Your task to perform on an android device: Play the last video I watched on Youtube Image 0: 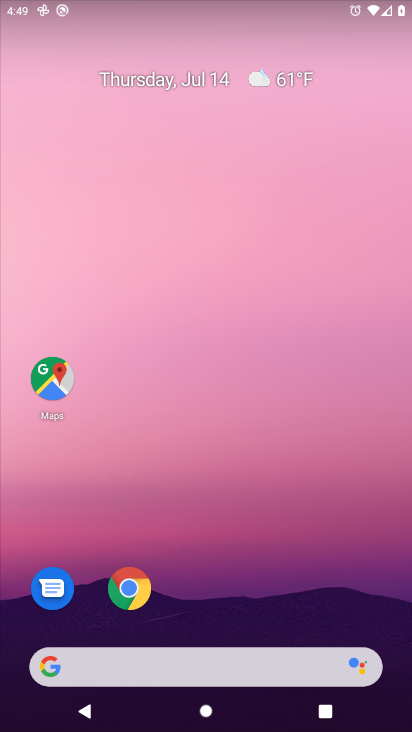
Step 0: press home button
Your task to perform on an android device: Play the last video I watched on Youtube Image 1: 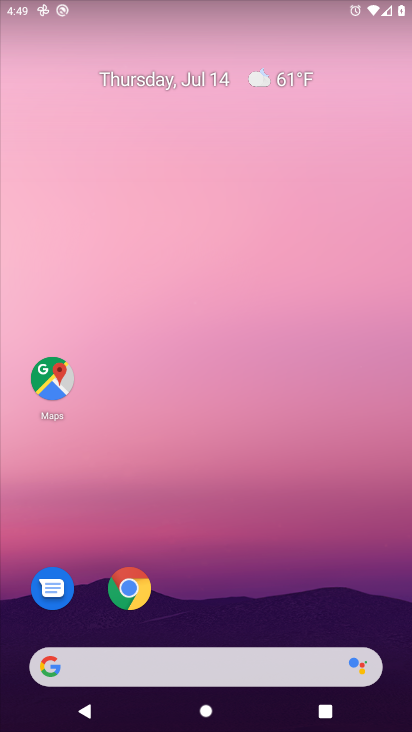
Step 1: drag from (220, 623) to (237, 4)
Your task to perform on an android device: Play the last video I watched on Youtube Image 2: 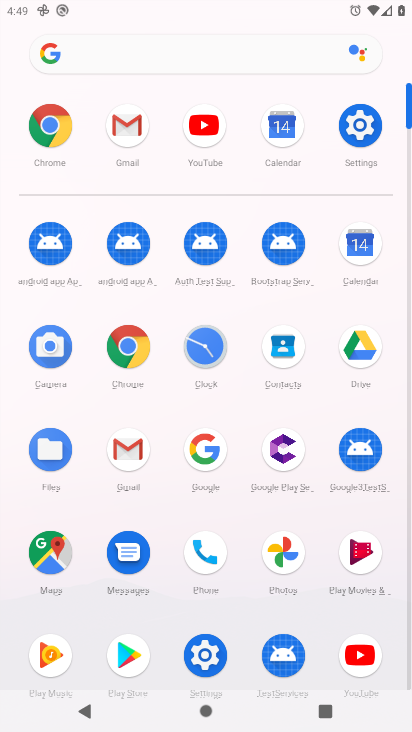
Step 2: click (358, 653)
Your task to perform on an android device: Play the last video I watched on Youtube Image 3: 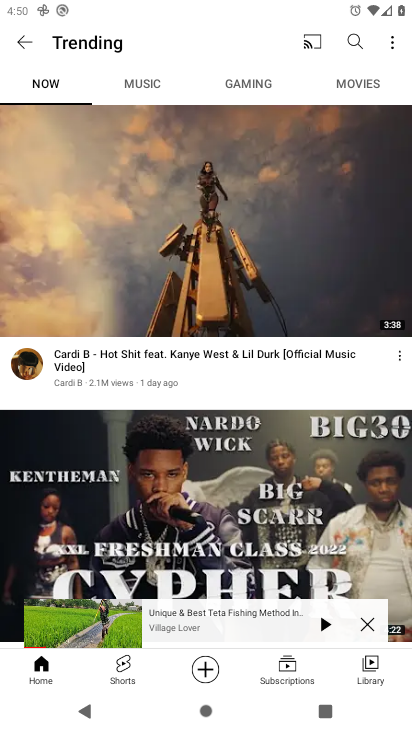
Step 3: click (370, 667)
Your task to perform on an android device: Play the last video I watched on Youtube Image 4: 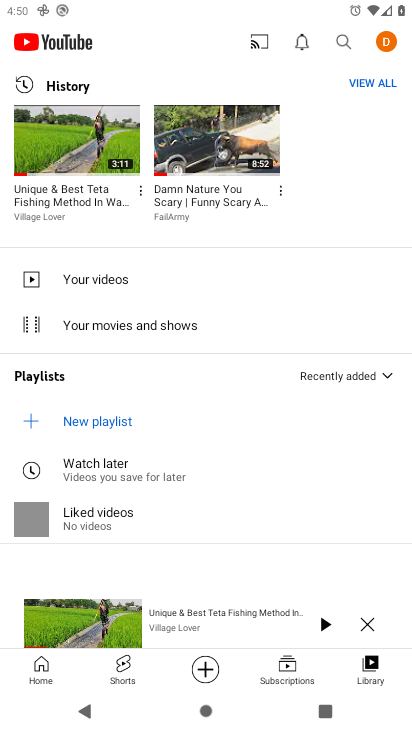
Step 4: click (82, 146)
Your task to perform on an android device: Play the last video I watched on Youtube Image 5: 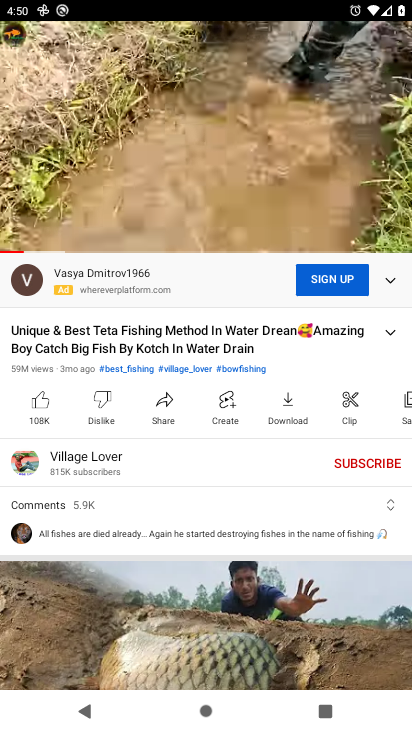
Step 5: click (157, 146)
Your task to perform on an android device: Play the last video I watched on Youtube Image 6: 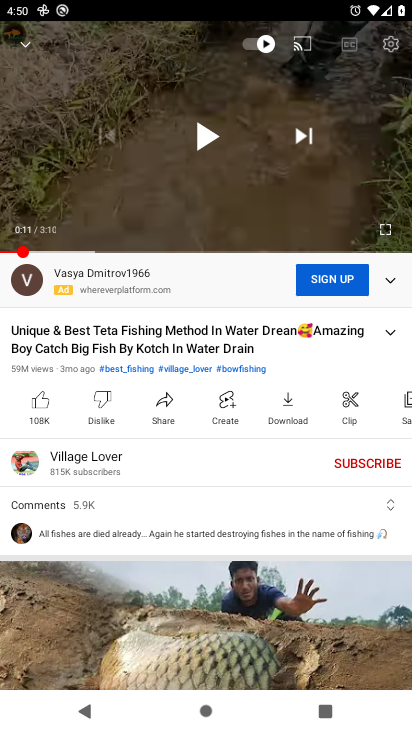
Step 6: click (213, 133)
Your task to perform on an android device: Play the last video I watched on Youtube Image 7: 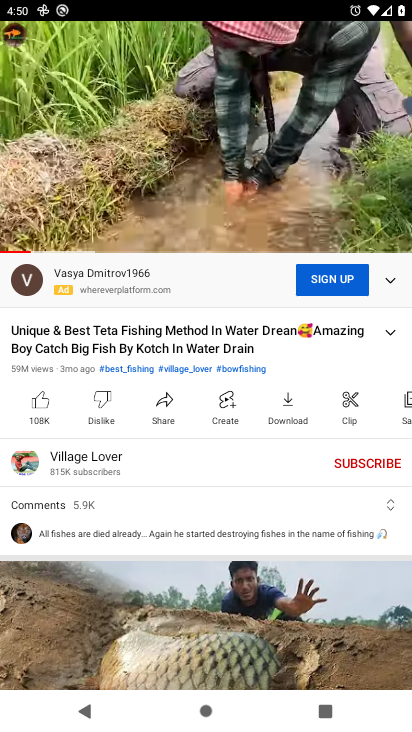
Step 7: task complete